Your task to perform on an android device: change the clock display to show seconds Image 0: 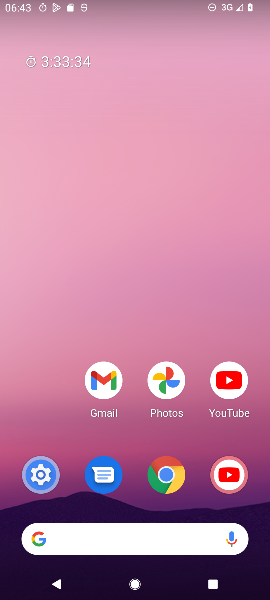
Step 0: drag from (65, 428) to (75, 194)
Your task to perform on an android device: change the clock display to show seconds Image 1: 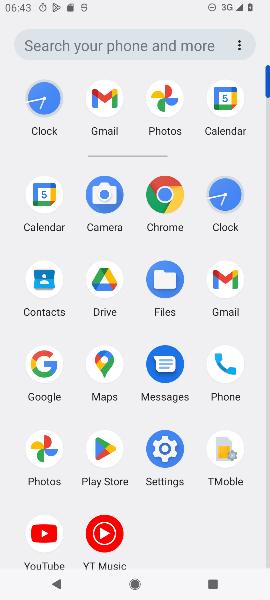
Step 1: click (226, 196)
Your task to perform on an android device: change the clock display to show seconds Image 2: 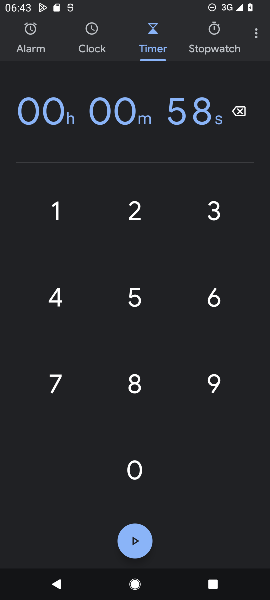
Step 2: click (259, 33)
Your task to perform on an android device: change the clock display to show seconds Image 3: 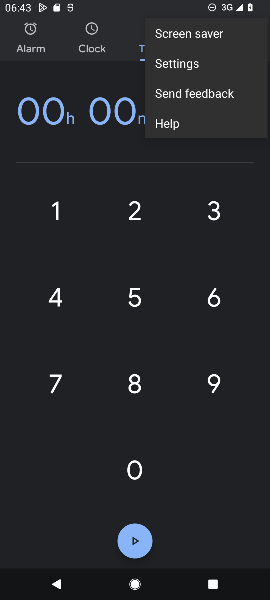
Step 3: click (184, 65)
Your task to perform on an android device: change the clock display to show seconds Image 4: 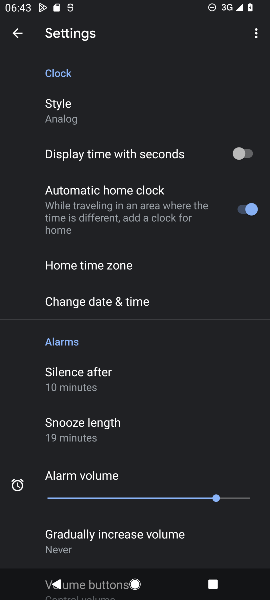
Step 4: drag from (193, 415) to (196, 348)
Your task to perform on an android device: change the clock display to show seconds Image 5: 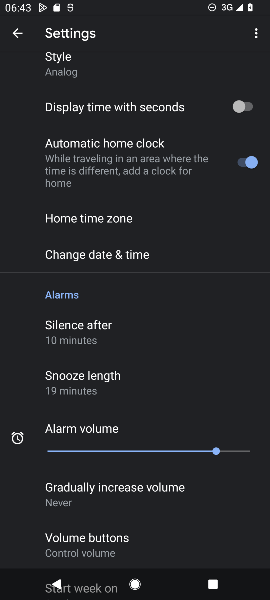
Step 5: drag from (204, 469) to (213, 396)
Your task to perform on an android device: change the clock display to show seconds Image 6: 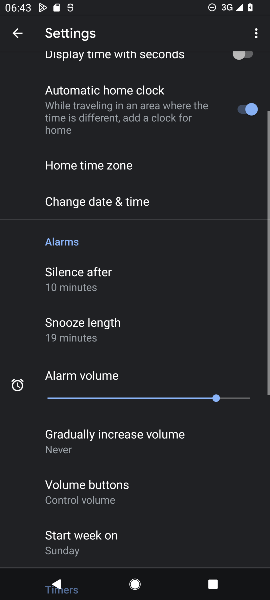
Step 6: drag from (205, 461) to (214, 397)
Your task to perform on an android device: change the clock display to show seconds Image 7: 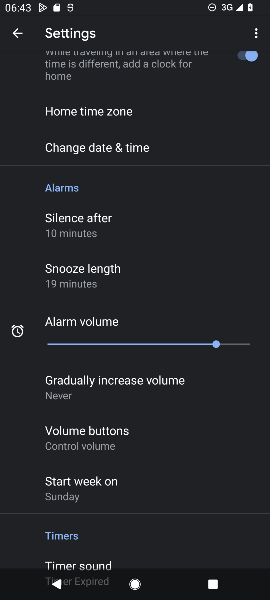
Step 7: drag from (231, 474) to (235, 415)
Your task to perform on an android device: change the clock display to show seconds Image 8: 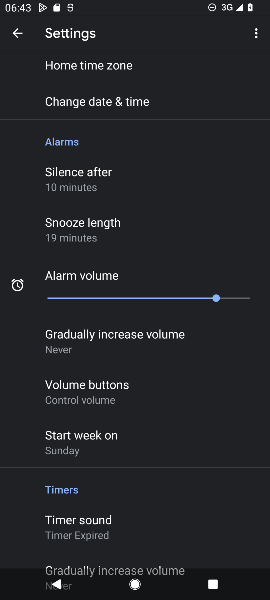
Step 8: drag from (220, 498) to (224, 386)
Your task to perform on an android device: change the clock display to show seconds Image 9: 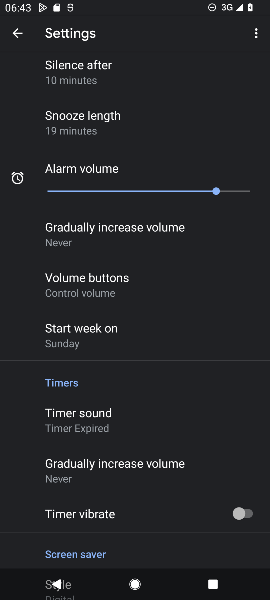
Step 9: drag from (189, 516) to (204, 377)
Your task to perform on an android device: change the clock display to show seconds Image 10: 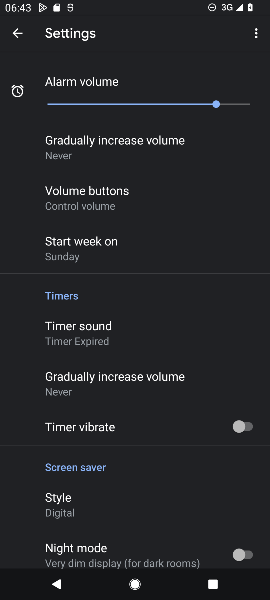
Step 10: drag from (204, 287) to (211, 361)
Your task to perform on an android device: change the clock display to show seconds Image 11: 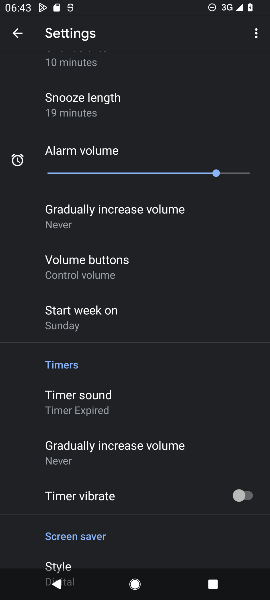
Step 11: drag from (222, 242) to (219, 310)
Your task to perform on an android device: change the clock display to show seconds Image 12: 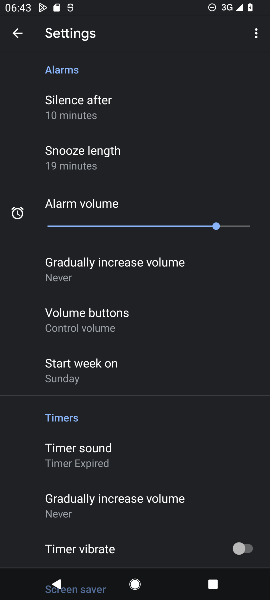
Step 12: drag from (226, 178) to (223, 292)
Your task to perform on an android device: change the clock display to show seconds Image 13: 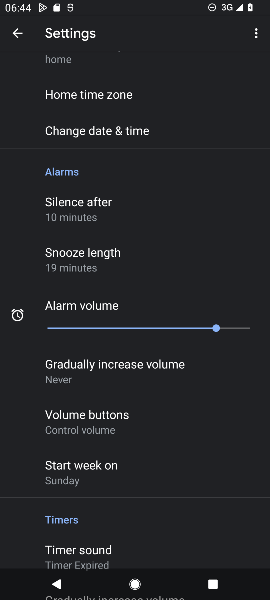
Step 13: drag from (216, 158) to (212, 268)
Your task to perform on an android device: change the clock display to show seconds Image 14: 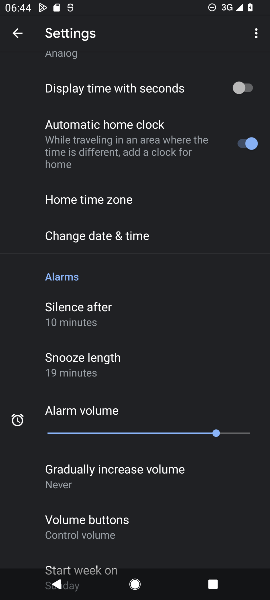
Step 14: drag from (213, 162) to (211, 267)
Your task to perform on an android device: change the clock display to show seconds Image 15: 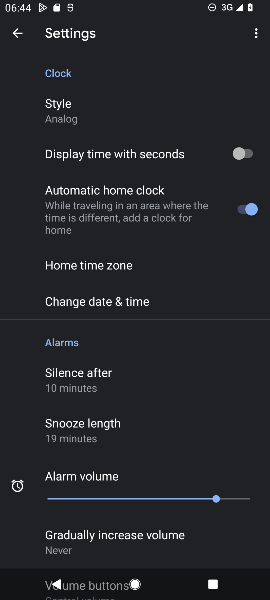
Step 15: drag from (209, 159) to (206, 298)
Your task to perform on an android device: change the clock display to show seconds Image 16: 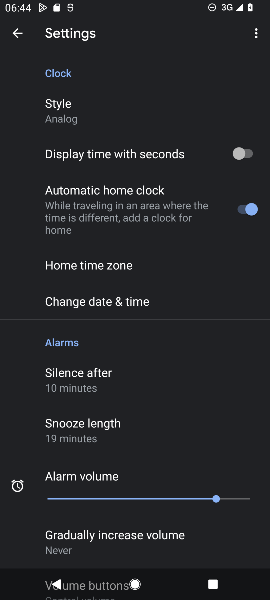
Step 16: click (226, 161)
Your task to perform on an android device: change the clock display to show seconds Image 17: 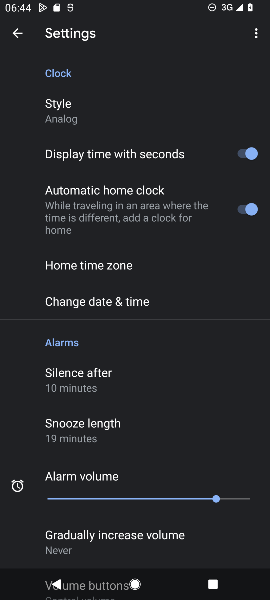
Step 17: task complete